Your task to perform on an android device: choose inbox layout in the gmail app Image 0: 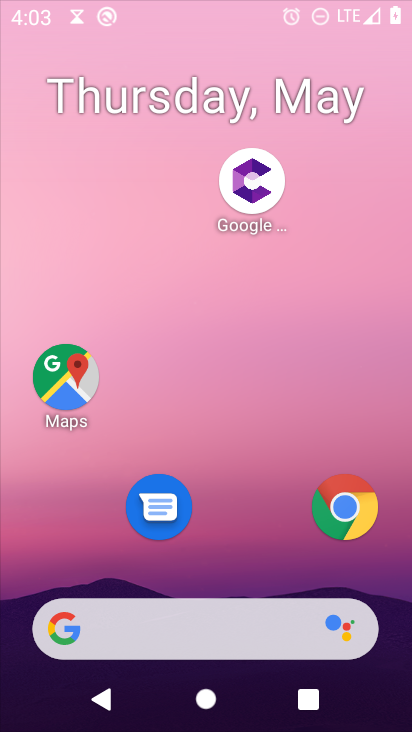
Step 0: press home button
Your task to perform on an android device: choose inbox layout in the gmail app Image 1: 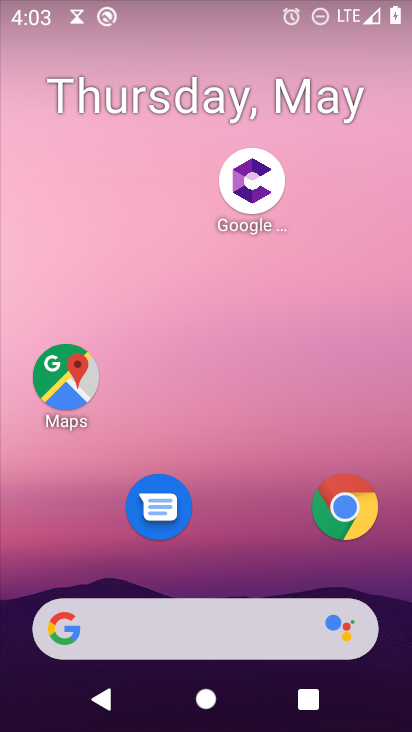
Step 1: drag from (286, 570) to (240, 199)
Your task to perform on an android device: choose inbox layout in the gmail app Image 2: 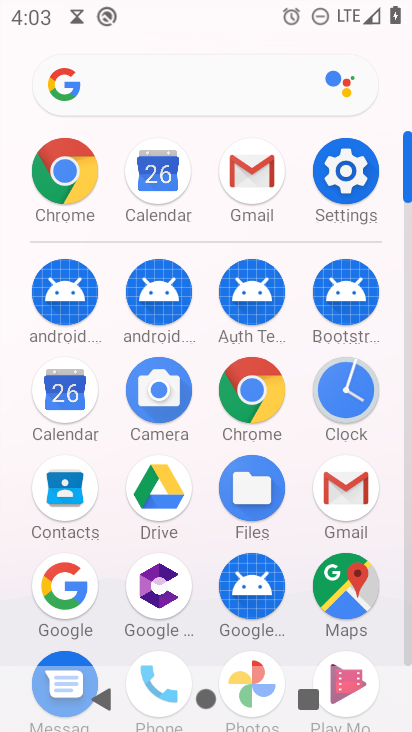
Step 2: click (256, 178)
Your task to perform on an android device: choose inbox layout in the gmail app Image 3: 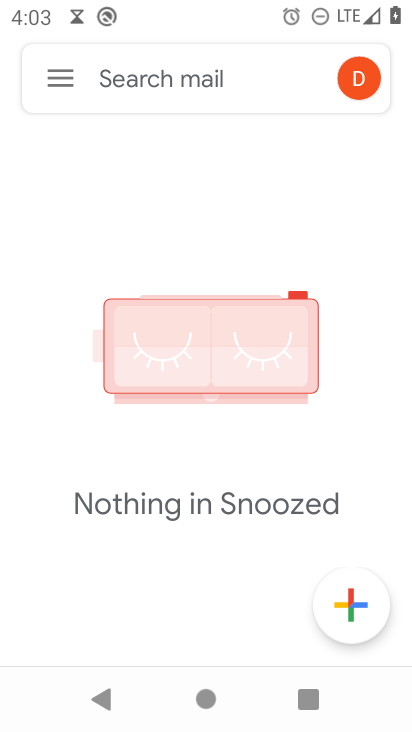
Step 3: click (48, 90)
Your task to perform on an android device: choose inbox layout in the gmail app Image 4: 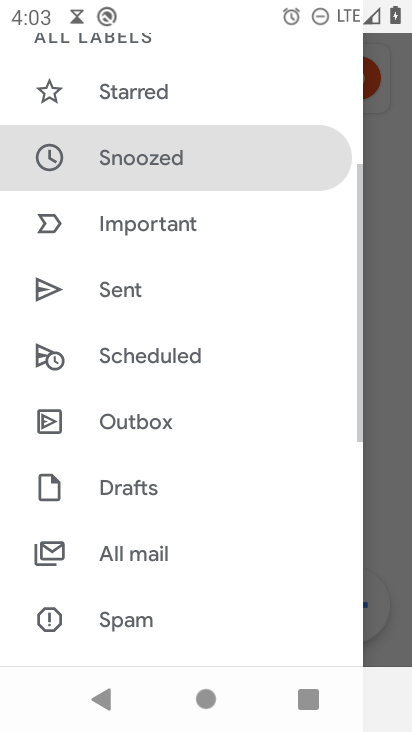
Step 4: drag from (256, 588) to (252, 123)
Your task to perform on an android device: choose inbox layout in the gmail app Image 5: 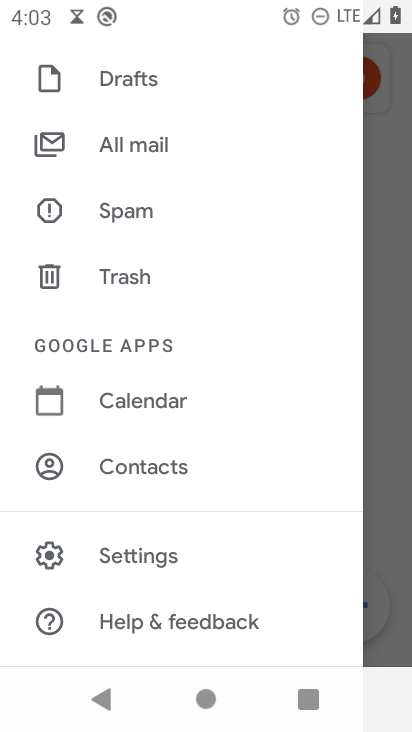
Step 5: click (160, 567)
Your task to perform on an android device: choose inbox layout in the gmail app Image 6: 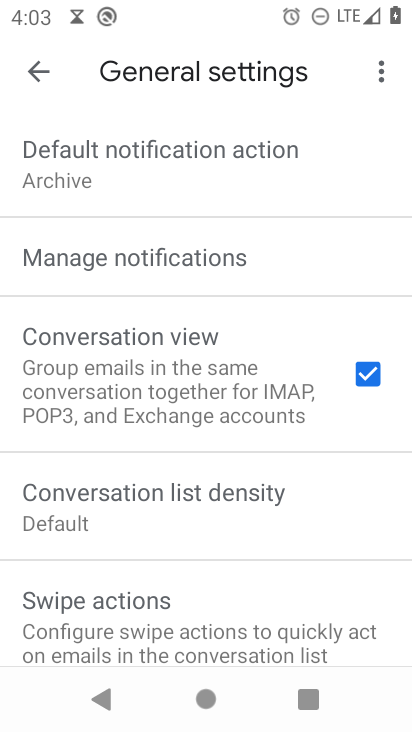
Step 6: click (34, 69)
Your task to perform on an android device: choose inbox layout in the gmail app Image 7: 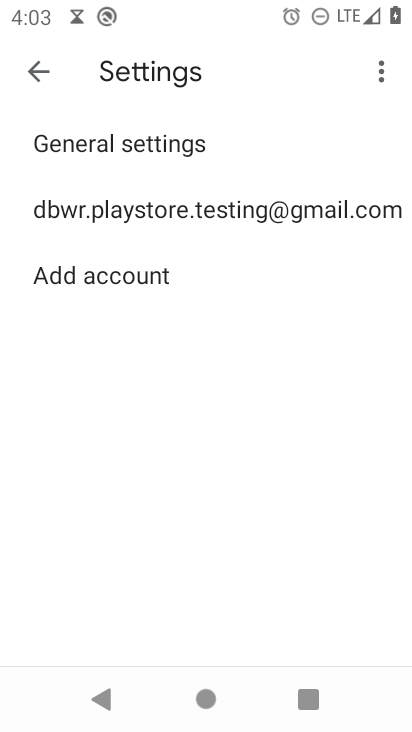
Step 7: click (146, 220)
Your task to perform on an android device: choose inbox layout in the gmail app Image 8: 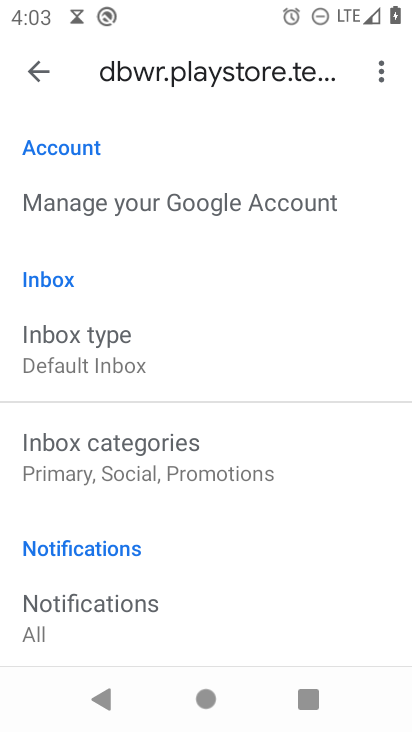
Step 8: click (74, 333)
Your task to perform on an android device: choose inbox layout in the gmail app Image 9: 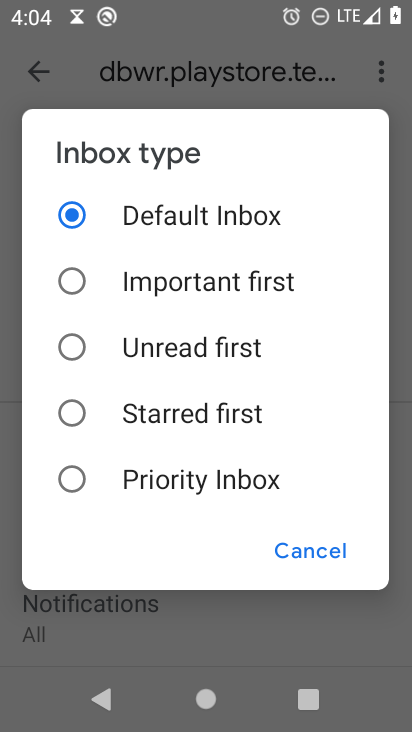
Step 9: task complete